Your task to perform on an android device: toggle notifications settings in the gmail app Image 0: 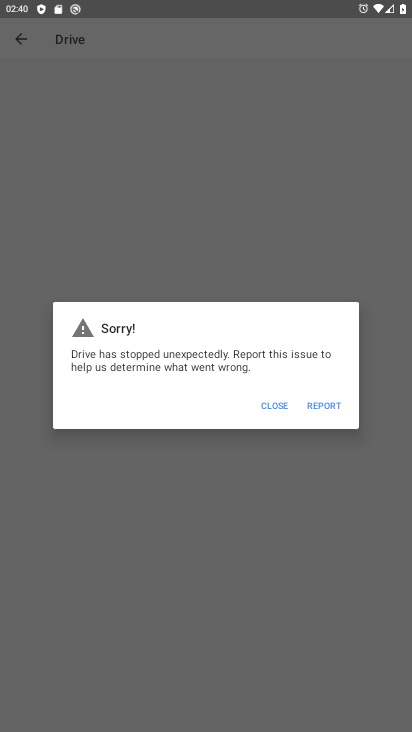
Step 0: press home button
Your task to perform on an android device: toggle notifications settings in the gmail app Image 1: 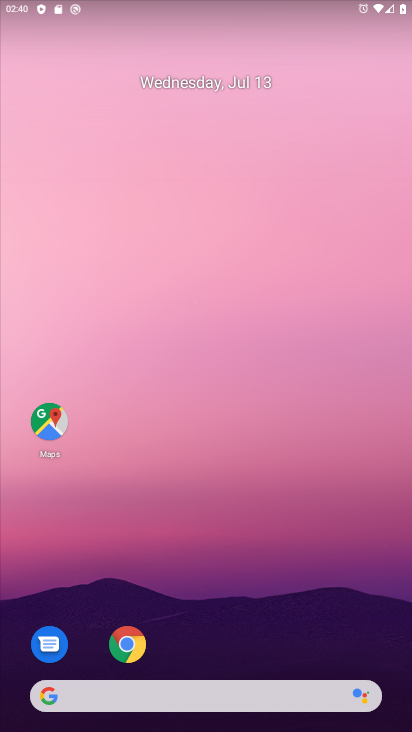
Step 1: drag from (110, 718) to (210, 136)
Your task to perform on an android device: toggle notifications settings in the gmail app Image 2: 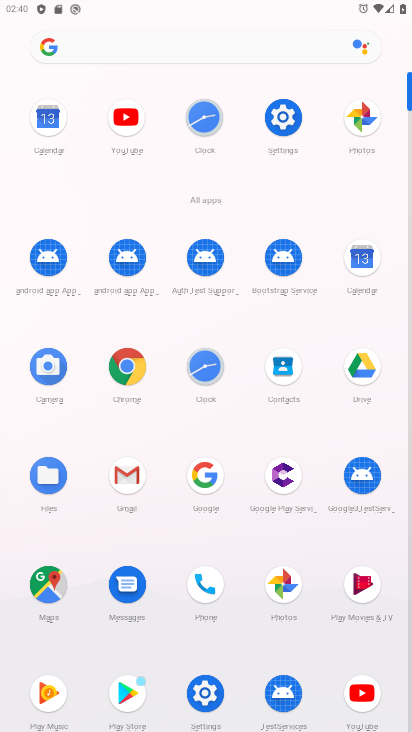
Step 2: click (136, 475)
Your task to perform on an android device: toggle notifications settings in the gmail app Image 3: 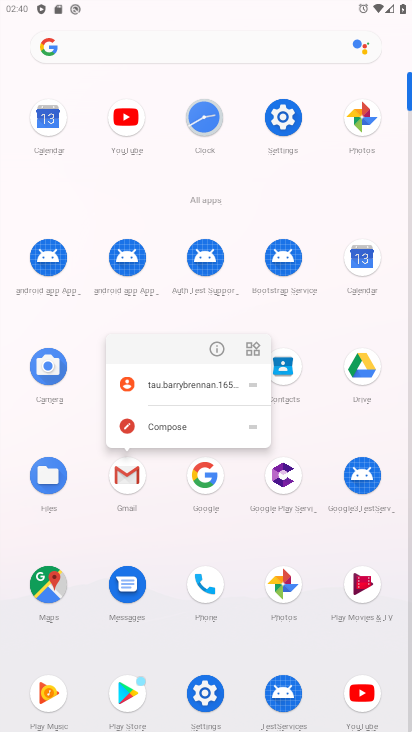
Step 3: click (214, 345)
Your task to perform on an android device: toggle notifications settings in the gmail app Image 4: 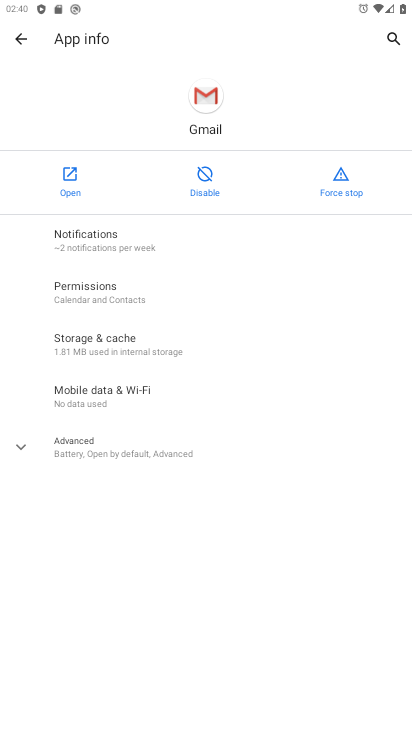
Step 4: click (228, 238)
Your task to perform on an android device: toggle notifications settings in the gmail app Image 5: 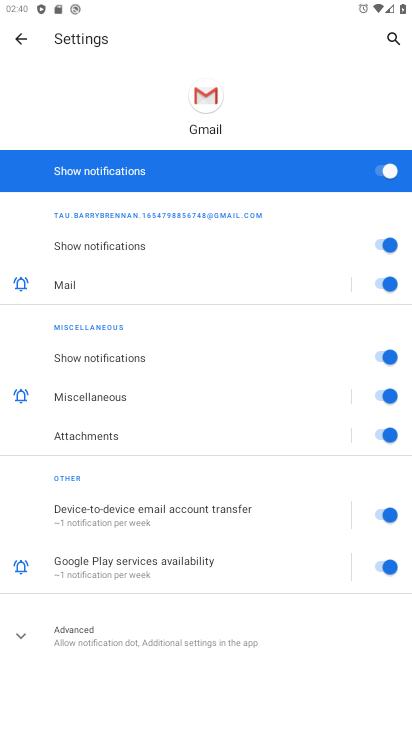
Step 5: click (391, 170)
Your task to perform on an android device: toggle notifications settings in the gmail app Image 6: 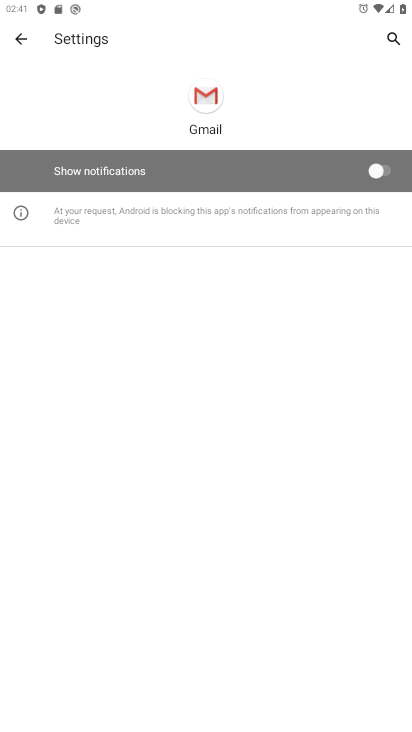
Step 6: task complete